Your task to perform on an android device: toggle wifi Image 0: 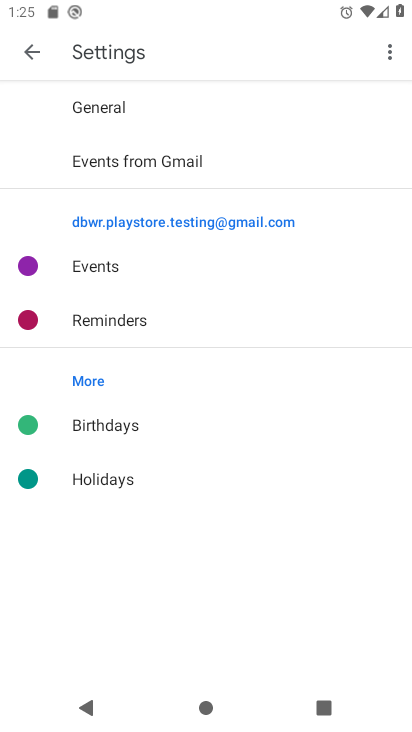
Step 0: press home button
Your task to perform on an android device: toggle wifi Image 1: 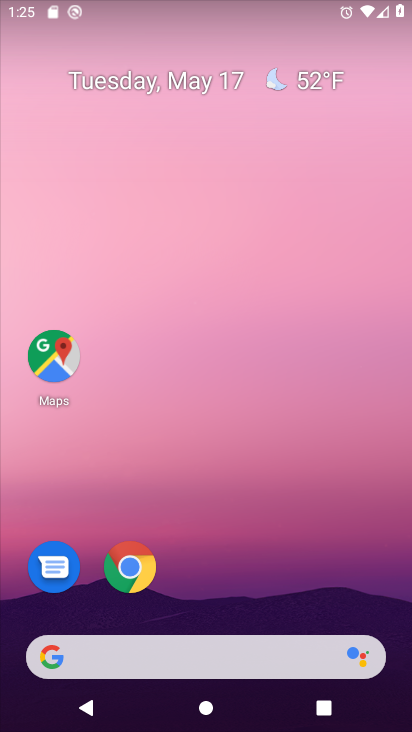
Step 1: drag from (181, 507) to (260, 146)
Your task to perform on an android device: toggle wifi Image 2: 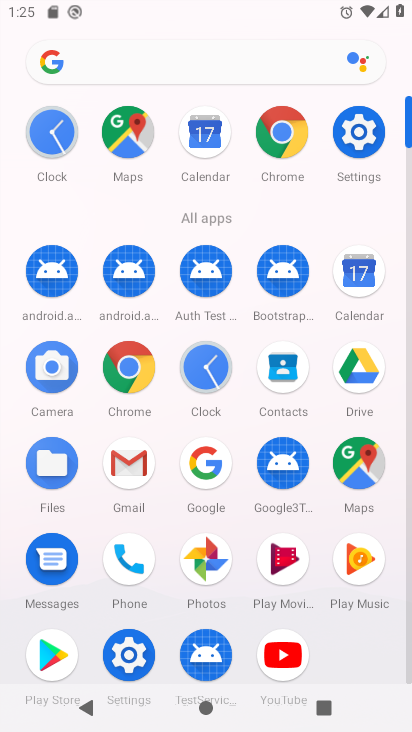
Step 2: click (349, 144)
Your task to perform on an android device: toggle wifi Image 3: 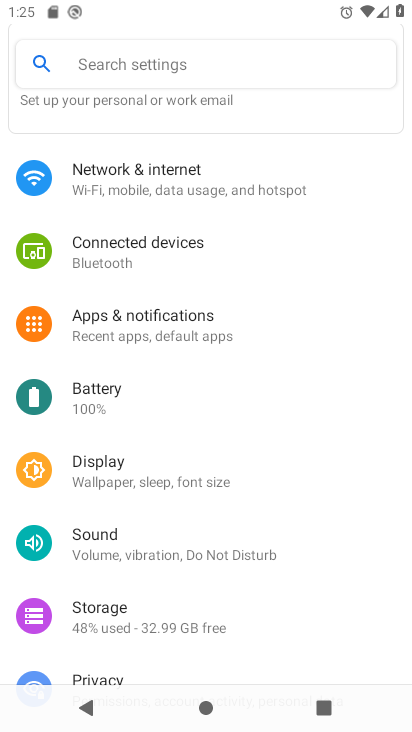
Step 3: click (167, 186)
Your task to perform on an android device: toggle wifi Image 4: 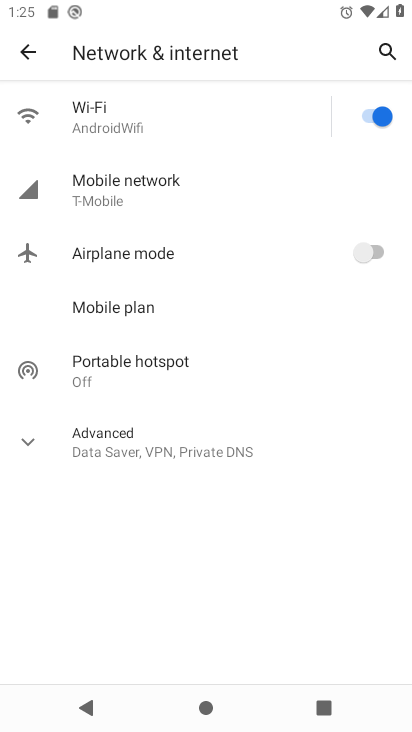
Step 4: click (377, 112)
Your task to perform on an android device: toggle wifi Image 5: 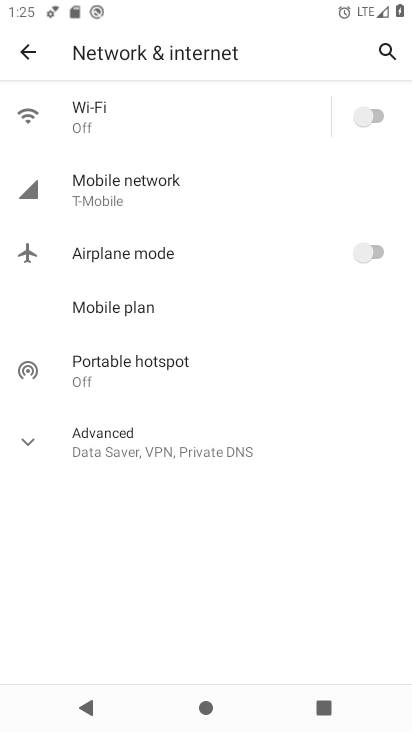
Step 5: task complete